Your task to perform on an android device: toggle sleep mode Image 0: 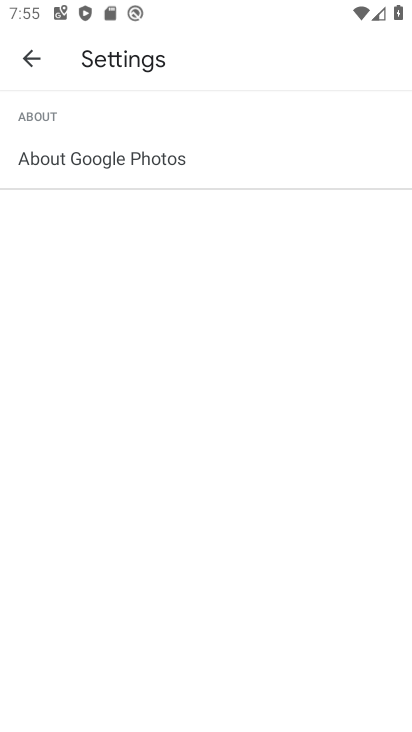
Step 0: press home button
Your task to perform on an android device: toggle sleep mode Image 1: 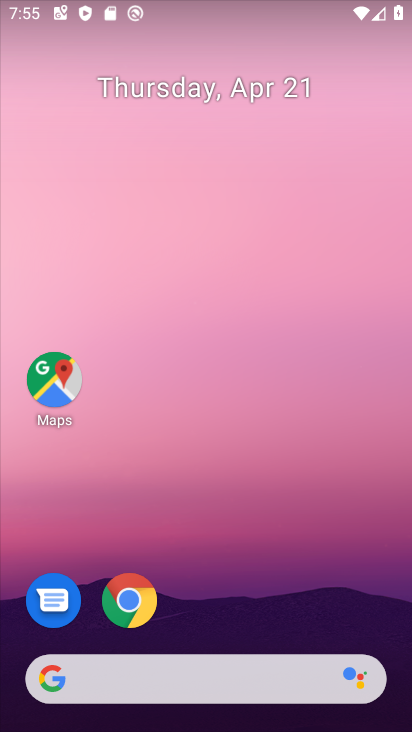
Step 1: drag from (41, 555) to (197, 163)
Your task to perform on an android device: toggle sleep mode Image 2: 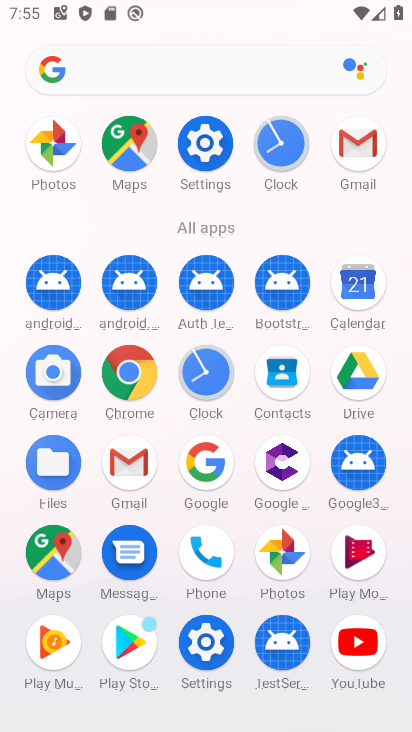
Step 2: click (210, 135)
Your task to perform on an android device: toggle sleep mode Image 3: 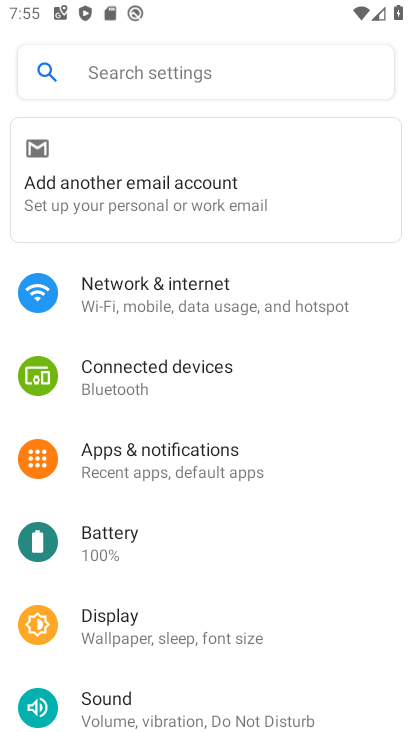
Step 3: click (142, 467)
Your task to perform on an android device: toggle sleep mode Image 4: 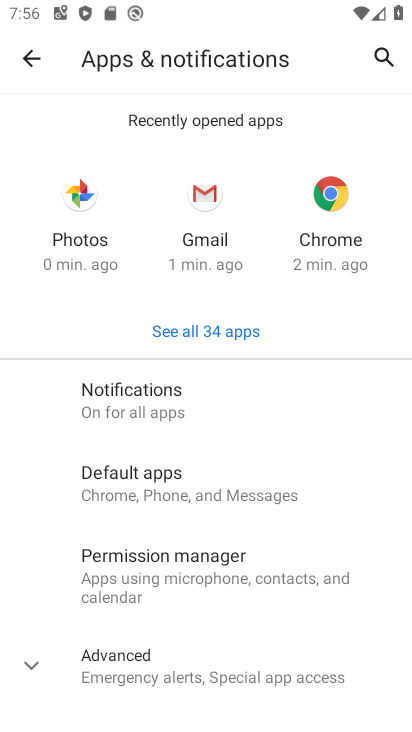
Step 4: task complete